Your task to perform on an android device: change alarm snooze length Image 0: 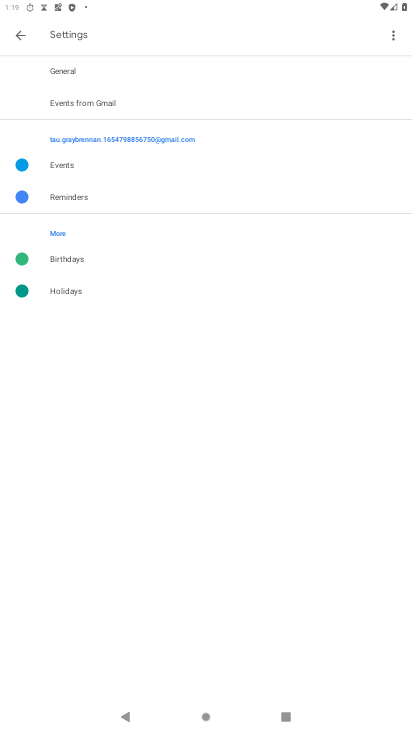
Step 0: press home button
Your task to perform on an android device: change alarm snooze length Image 1: 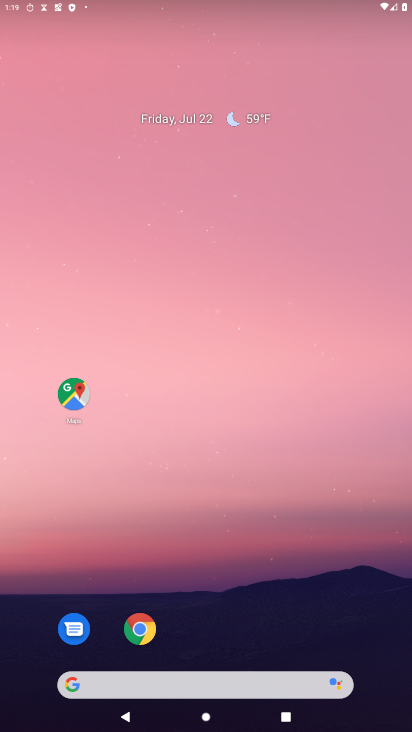
Step 1: drag from (141, 693) to (179, 293)
Your task to perform on an android device: change alarm snooze length Image 2: 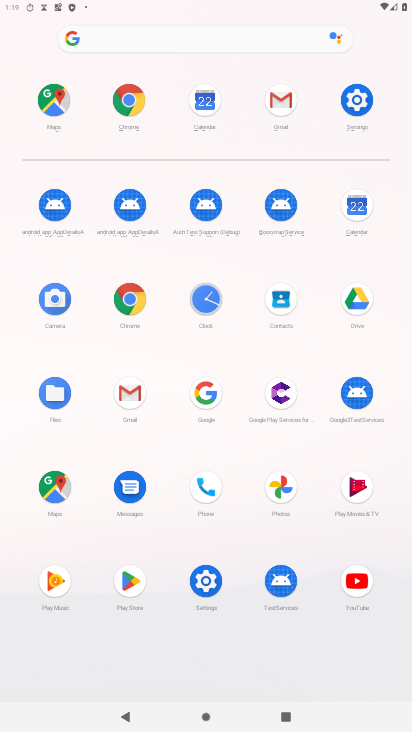
Step 2: click (208, 299)
Your task to perform on an android device: change alarm snooze length Image 3: 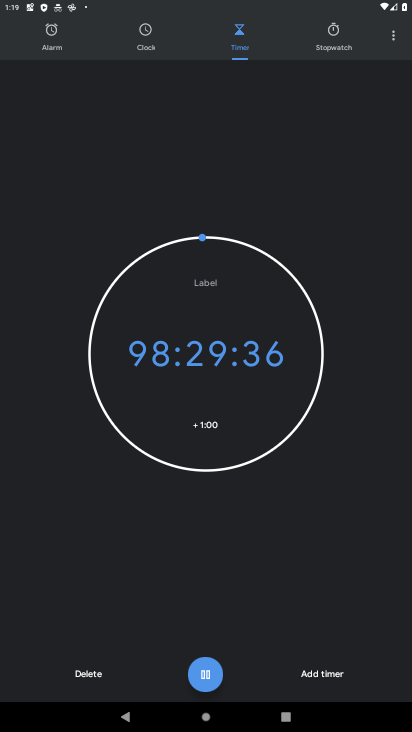
Step 3: drag from (397, 36) to (317, 63)
Your task to perform on an android device: change alarm snooze length Image 4: 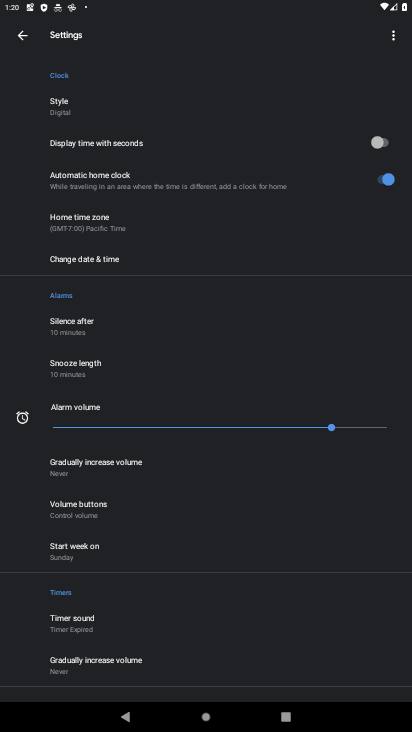
Step 4: click (88, 377)
Your task to perform on an android device: change alarm snooze length Image 5: 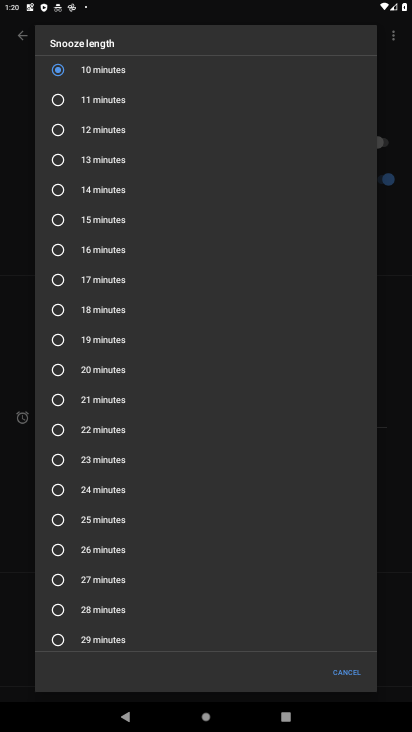
Step 5: click (63, 107)
Your task to perform on an android device: change alarm snooze length Image 6: 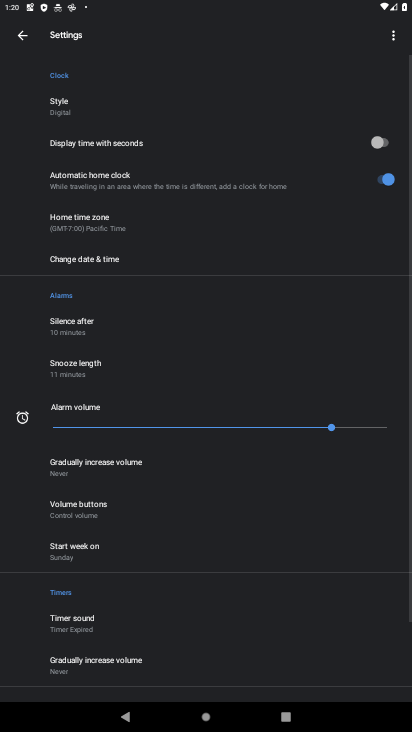
Step 6: task complete